Your task to perform on an android device: check storage Image 0: 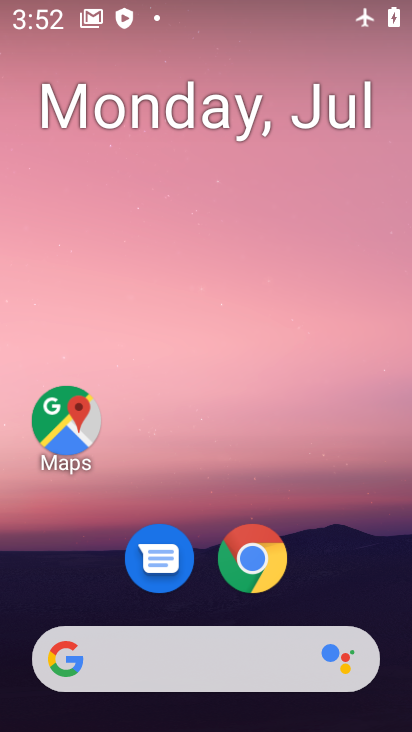
Step 0: drag from (95, 568) to (209, 2)
Your task to perform on an android device: check storage Image 1: 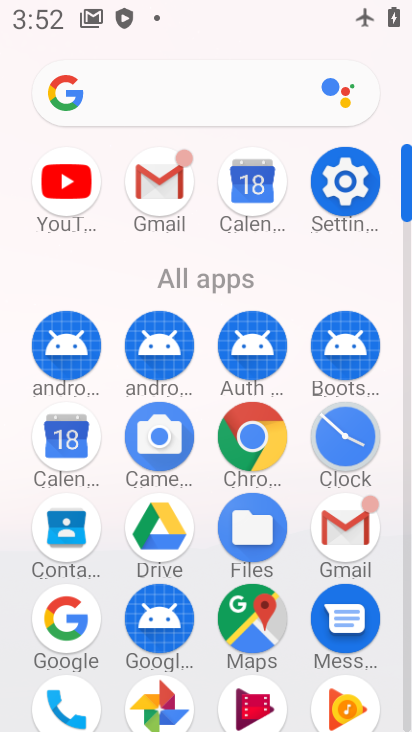
Step 1: click (343, 176)
Your task to perform on an android device: check storage Image 2: 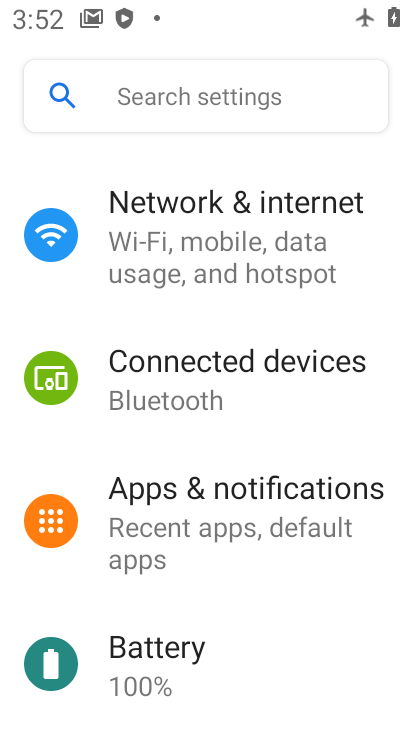
Step 2: drag from (250, 607) to (359, 8)
Your task to perform on an android device: check storage Image 3: 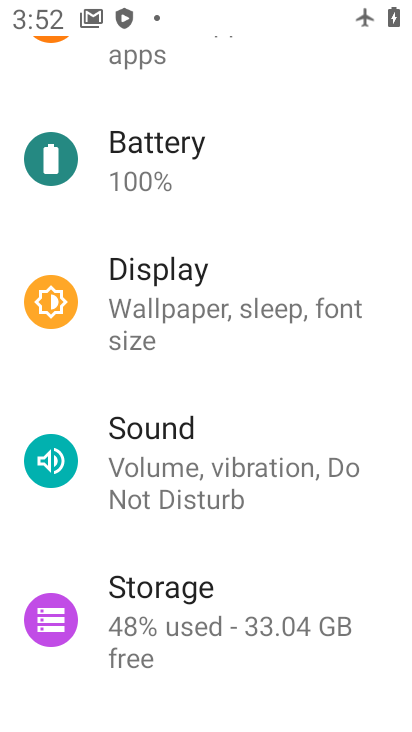
Step 3: click (180, 643)
Your task to perform on an android device: check storage Image 4: 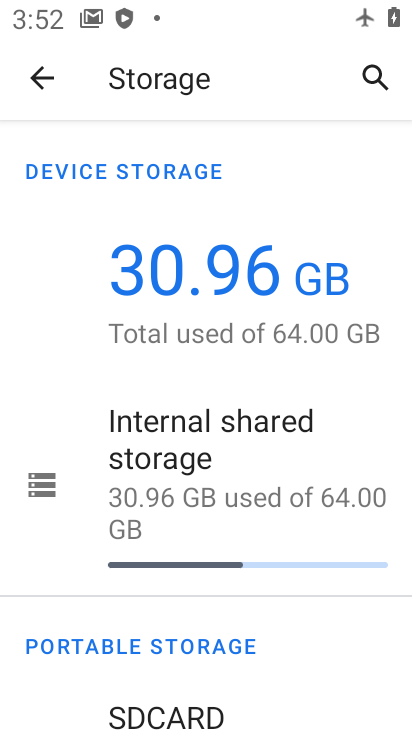
Step 4: task complete